Your task to perform on an android device: Open the calendar and show me this week's events? Image 0: 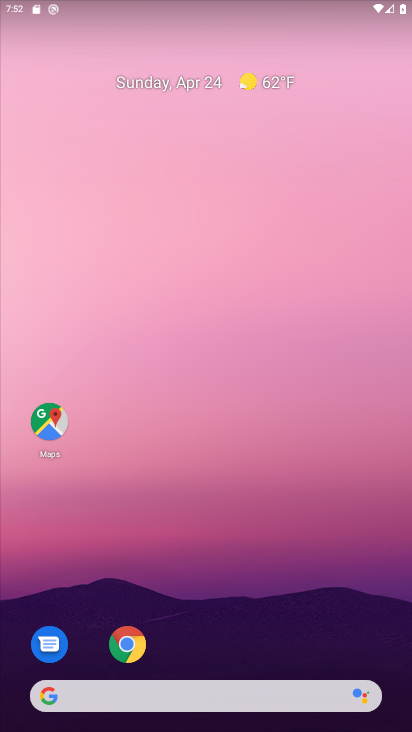
Step 0: drag from (206, 659) to (269, 15)
Your task to perform on an android device: Open the calendar and show me this week's events? Image 1: 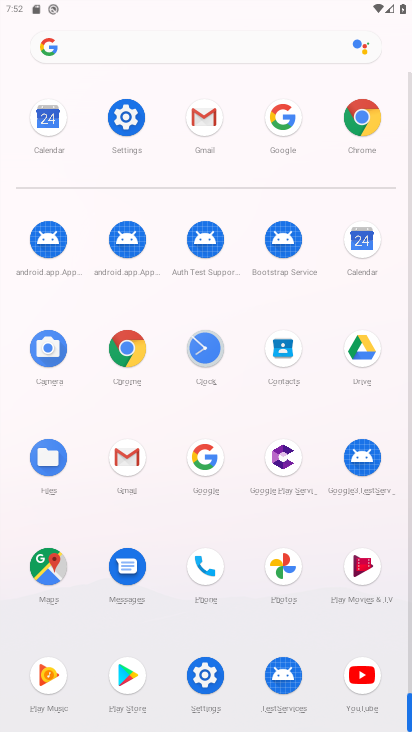
Step 1: click (358, 235)
Your task to perform on an android device: Open the calendar and show me this week's events? Image 2: 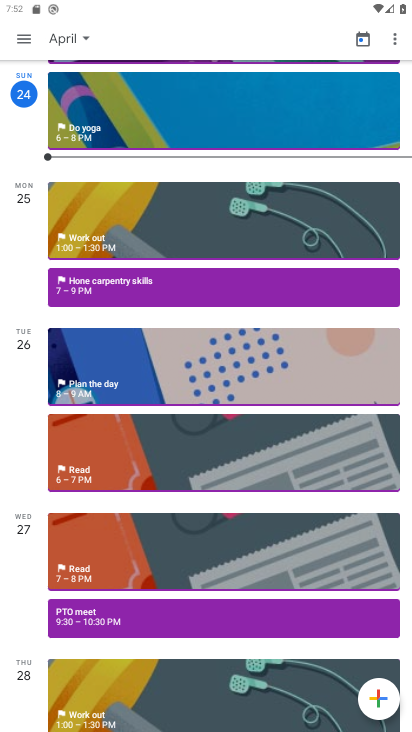
Step 2: click (16, 45)
Your task to perform on an android device: Open the calendar and show me this week's events? Image 3: 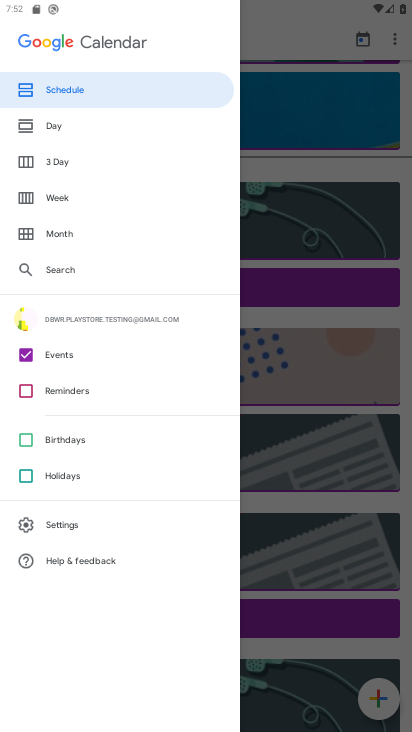
Step 3: click (50, 88)
Your task to perform on an android device: Open the calendar and show me this week's events? Image 4: 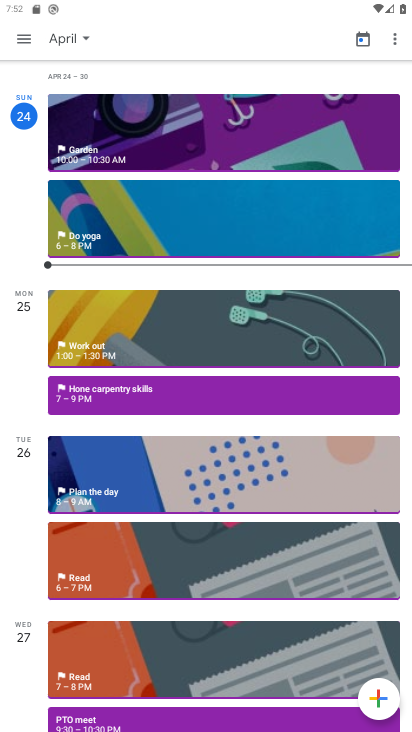
Step 4: task complete